Your task to perform on an android device: manage bookmarks in the chrome app Image 0: 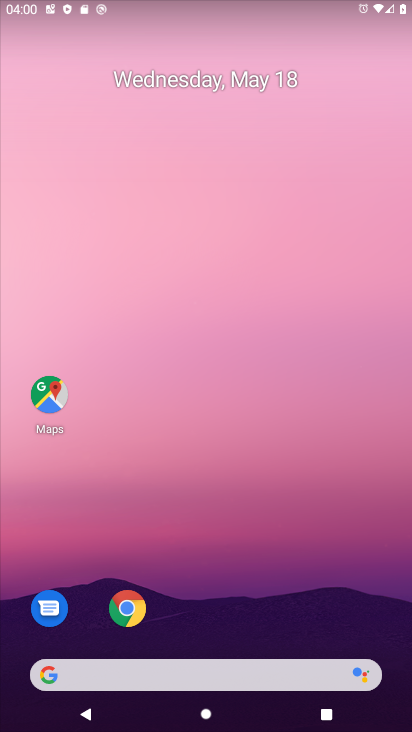
Step 0: click (131, 612)
Your task to perform on an android device: manage bookmarks in the chrome app Image 1: 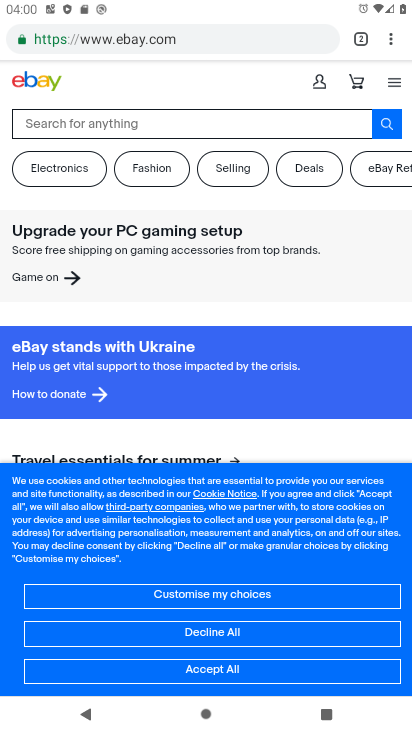
Step 1: click (394, 44)
Your task to perform on an android device: manage bookmarks in the chrome app Image 2: 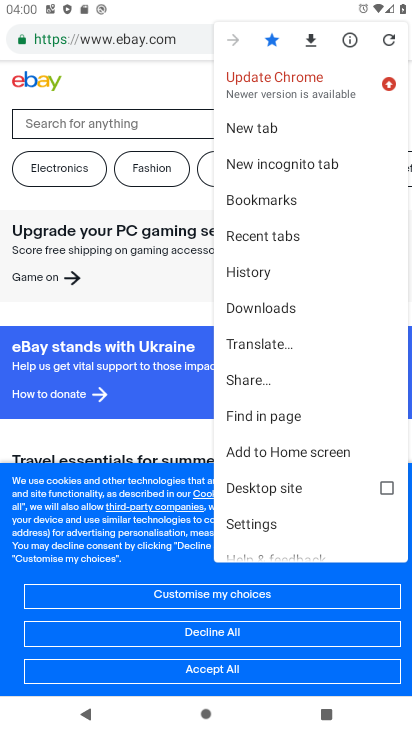
Step 2: click (310, 187)
Your task to perform on an android device: manage bookmarks in the chrome app Image 3: 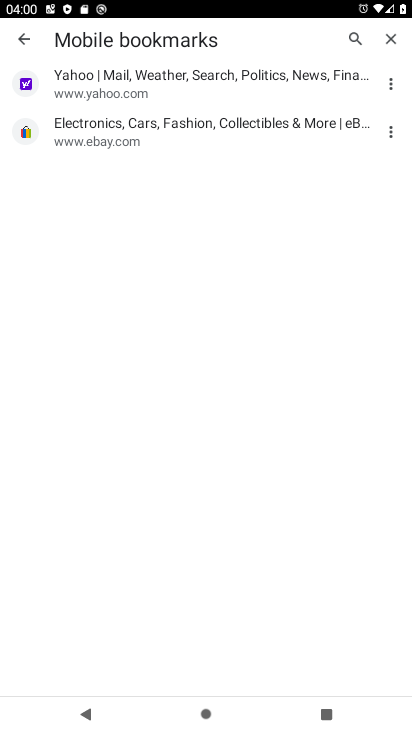
Step 3: click (383, 124)
Your task to perform on an android device: manage bookmarks in the chrome app Image 4: 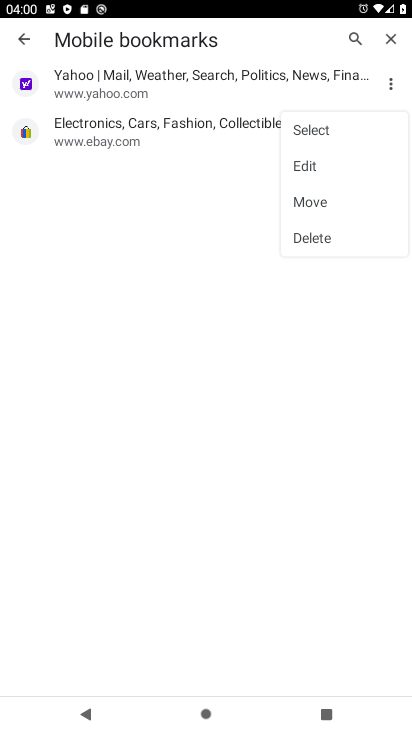
Step 4: click (324, 225)
Your task to perform on an android device: manage bookmarks in the chrome app Image 5: 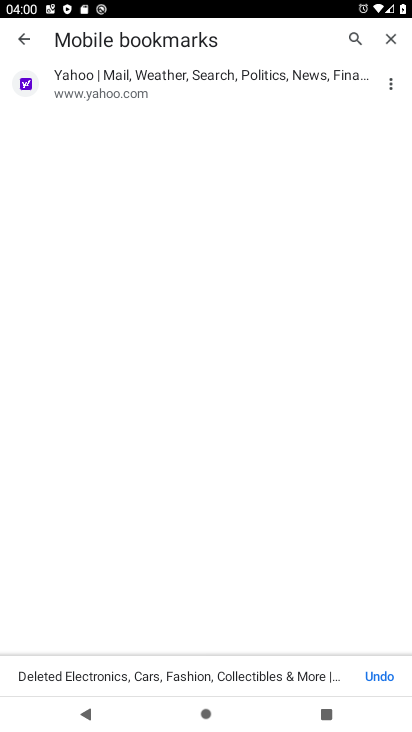
Step 5: task complete